Your task to perform on an android device: turn notification dots on Image 0: 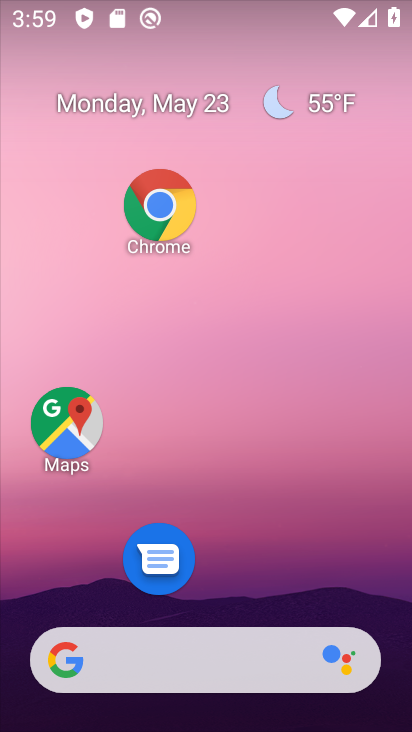
Step 0: drag from (272, 612) to (202, 2)
Your task to perform on an android device: turn notification dots on Image 1: 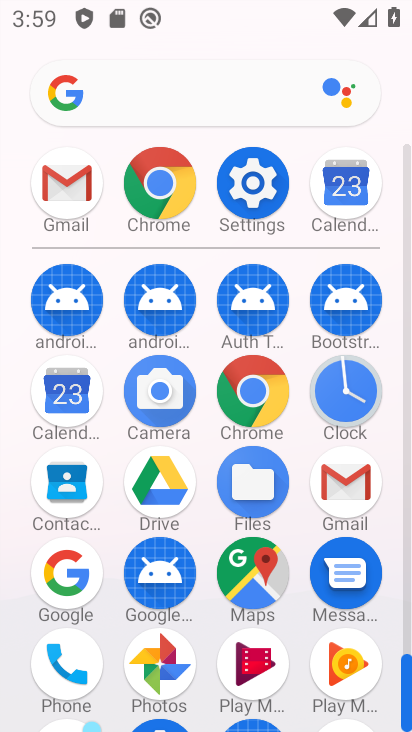
Step 1: click (255, 179)
Your task to perform on an android device: turn notification dots on Image 2: 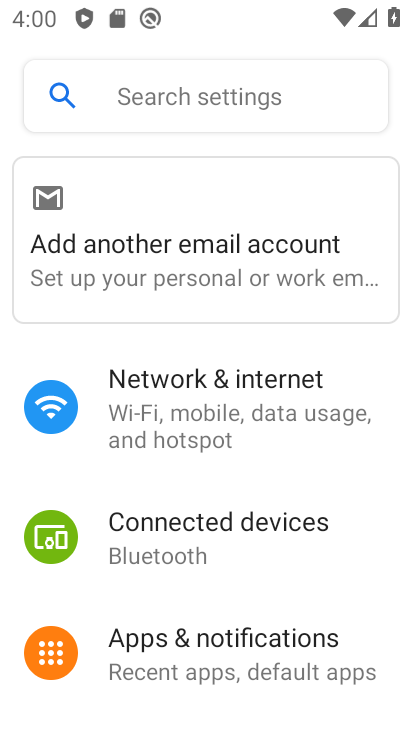
Step 2: click (222, 668)
Your task to perform on an android device: turn notification dots on Image 3: 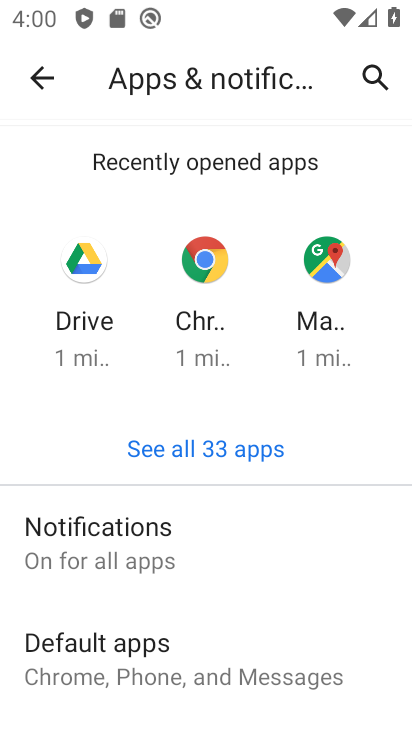
Step 3: drag from (173, 482) to (128, 114)
Your task to perform on an android device: turn notification dots on Image 4: 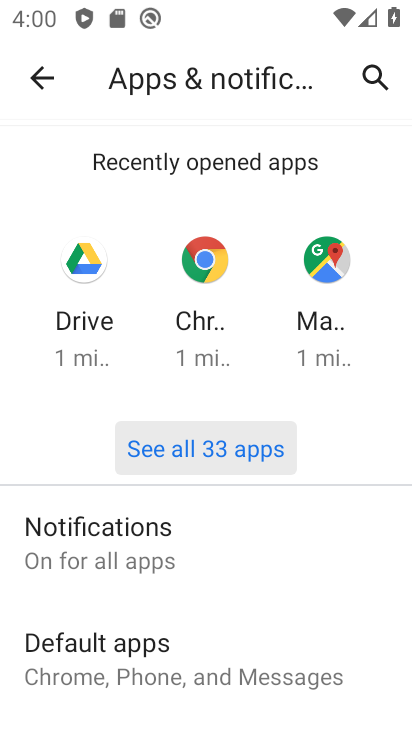
Step 4: drag from (184, 553) to (120, 2)
Your task to perform on an android device: turn notification dots on Image 5: 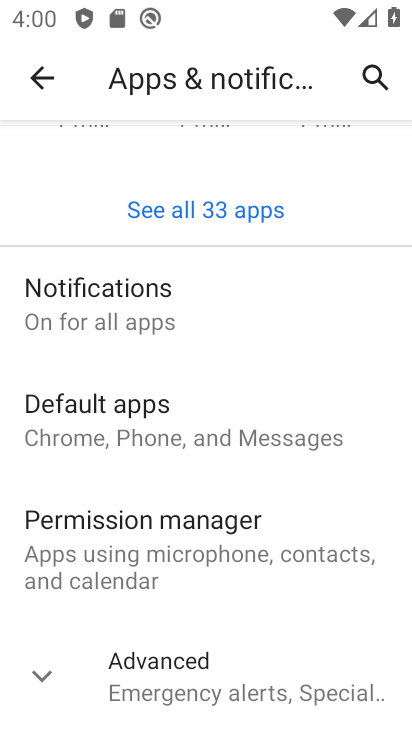
Step 5: drag from (160, 505) to (111, 180)
Your task to perform on an android device: turn notification dots on Image 6: 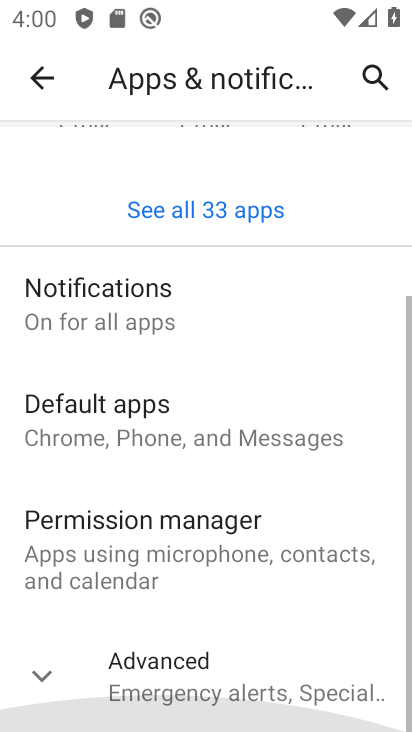
Step 6: drag from (173, 528) to (140, 199)
Your task to perform on an android device: turn notification dots on Image 7: 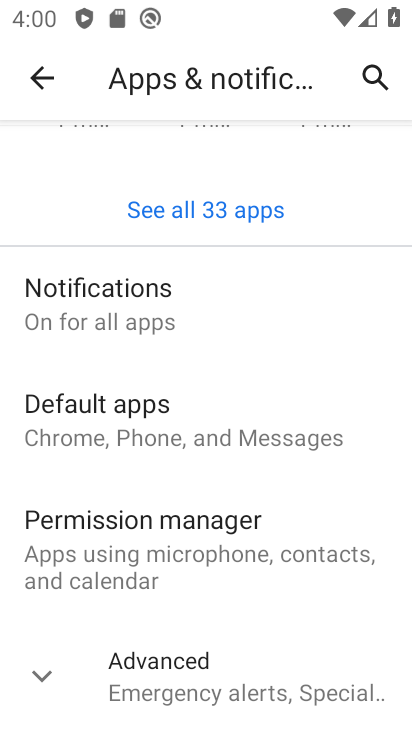
Step 7: click (100, 303)
Your task to perform on an android device: turn notification dots on Image 8: 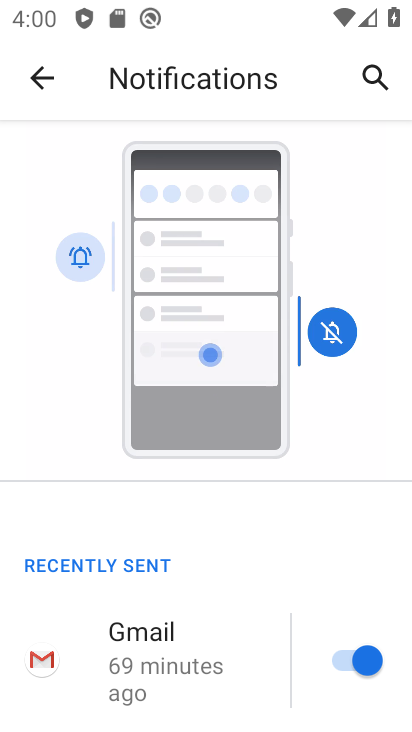
Step 8: drag from (174, 624) to (146, 266)
Your task to perform on an android device: turn notification dots on Image 9: 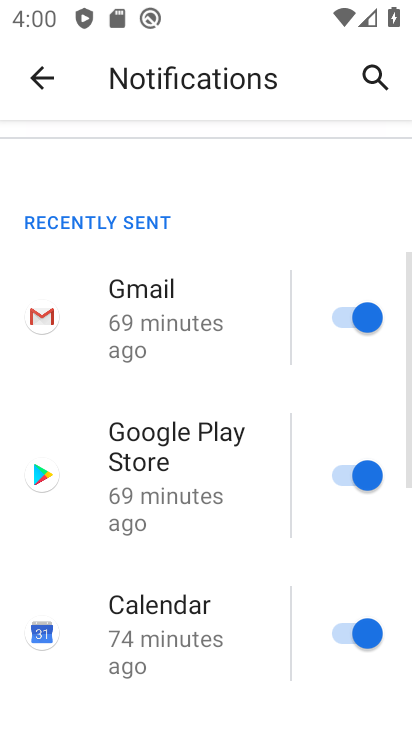
Step 9: drag from (183, 534) to (189, 220)
Your task to perform on an android device: turn notification dots on Image 10: 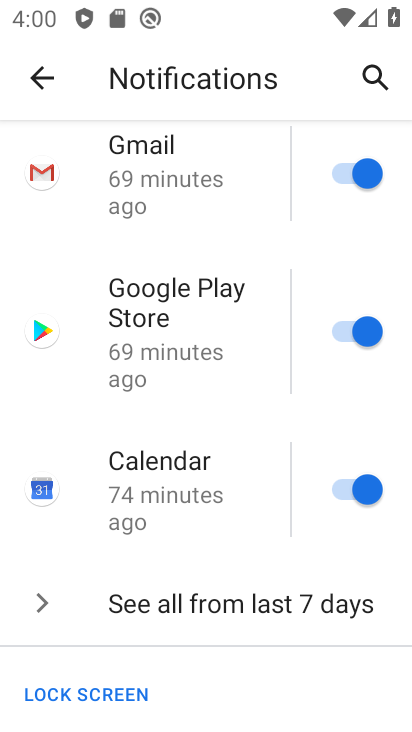
Step 10: drag from (214, 512) to (177, 273)
Your task to perform on an android device: turn notification dots on Image 11: 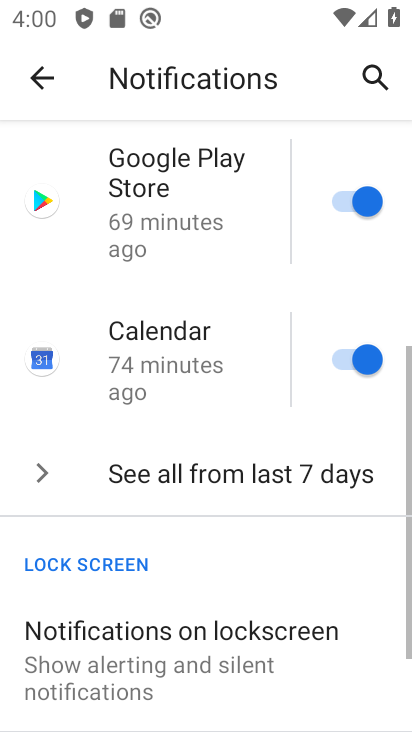
Step 11: drag from (229, 527) to (187, 94)
Your task to perform on an android device: turn notification dots on Image 12: 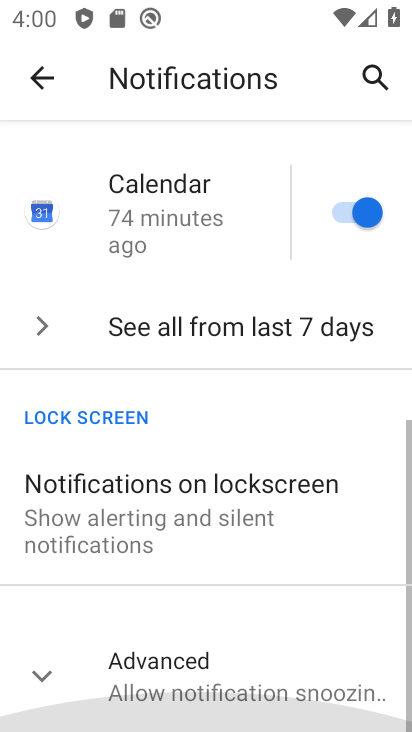
Step 12: drag from (224, 552) to (203, 131)
Your task to perform on an android device: turn notification dots on Image 13: 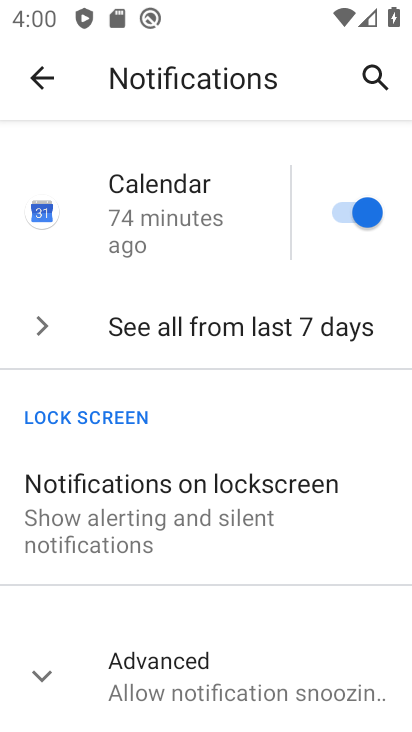
Step 13: click (166, 678)
Your task to perform on an android device: turn notification dots on Image 14: 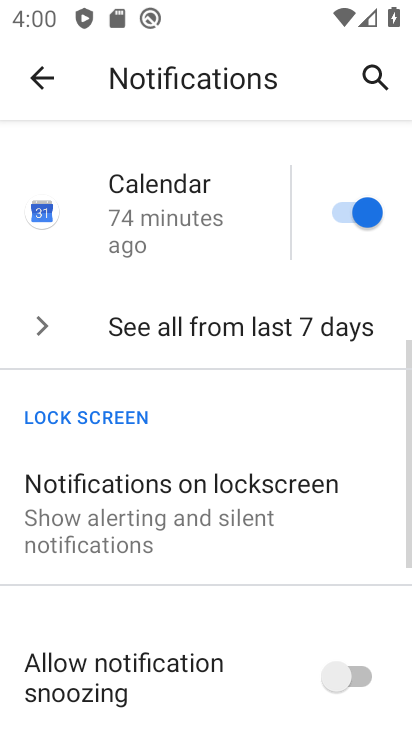
Step 14: drag from (209, 550) to (165, 249)
Your task to perform on an android device: turn notification dots on Image 15: 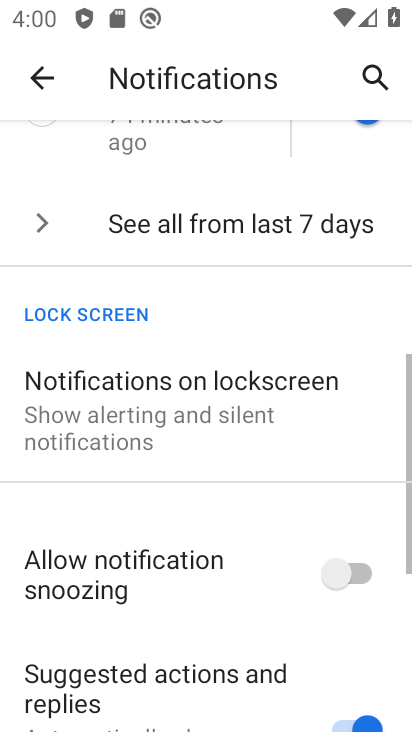
Step 15: drag from (215, 578) to (123, 402)
Your task to perform on an android device: turn notification dots on Image 16: 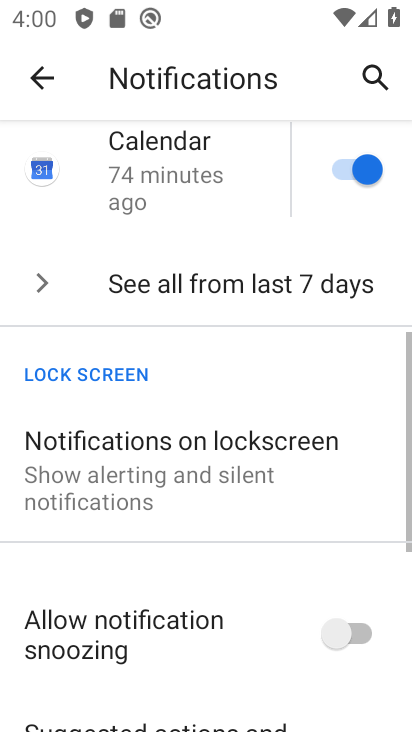
Step 16: drag from (158, 584) to (158, 425)
Your task to perform on an android device: turn notification dots on Image 17: 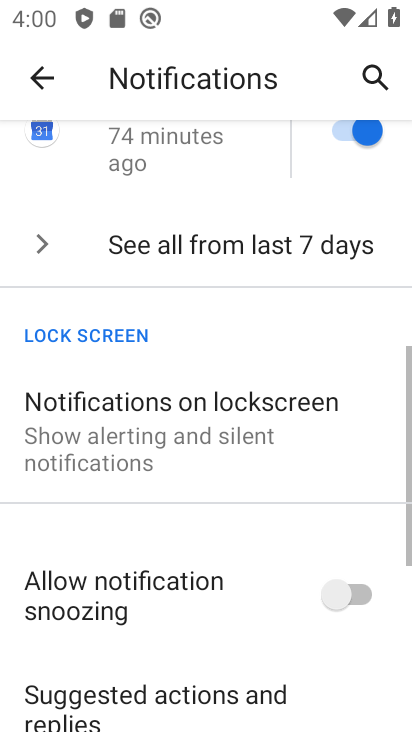
Step 17: drag from (196, 585) to (170, 370)
Your task to perform on an android device: turn notification dots on Image 18: 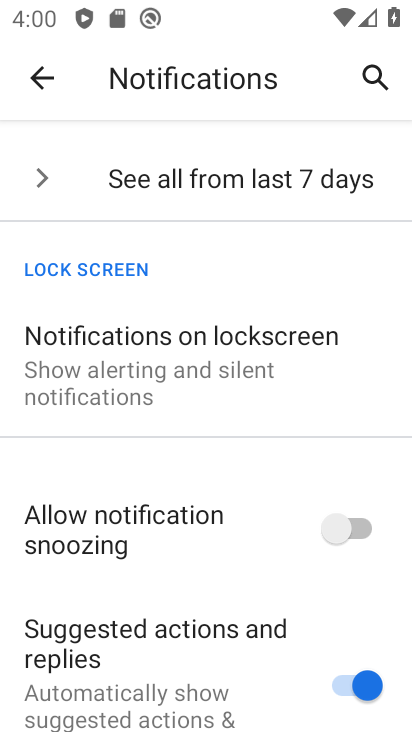
Step 18: drag from (194, 515) to (208, 334)
Your task to perform on an android device: turn notification dots on Image 19: 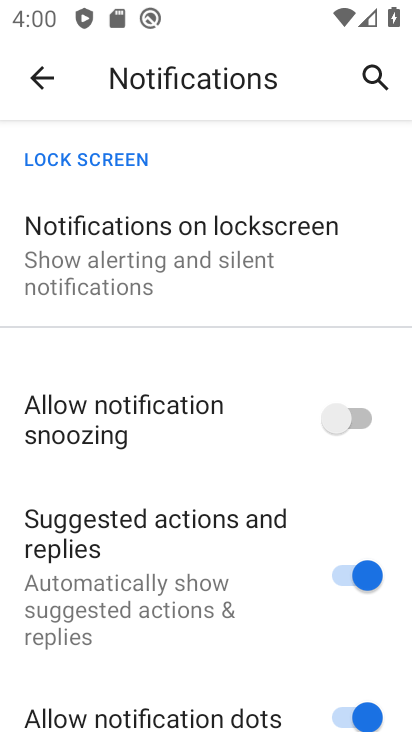
Step 19: drag from (189, 630) to (212, 291)
Your task to perform on an android device: turn notification dots on Image 20: 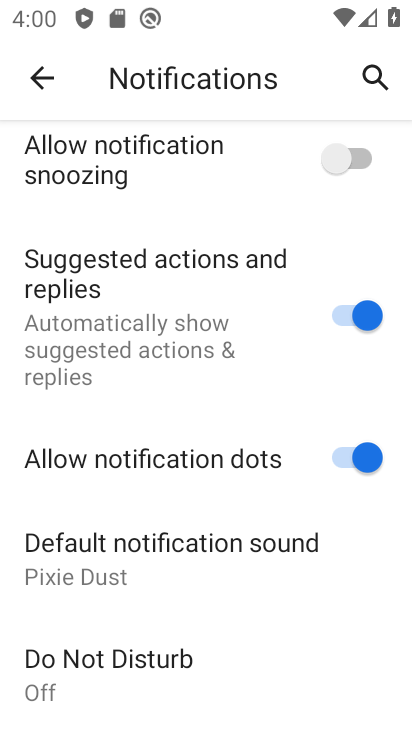
Step 20: click (362, 448)
Your task to perform on an android device: turn notification dots on Image 21: 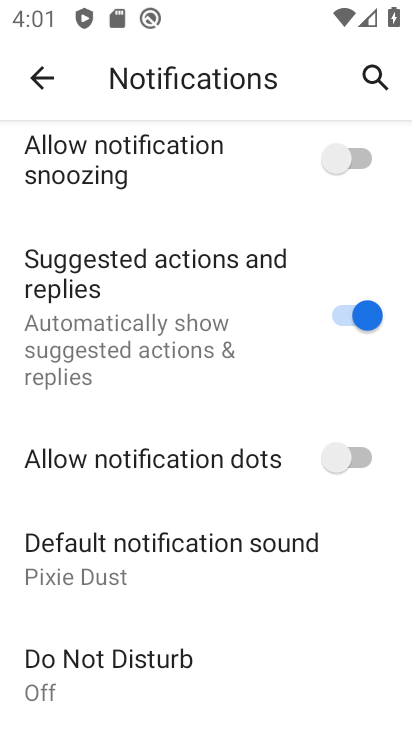
Step 21: click (331, 451)
Your task to perform on an android device: turn notification dots on Image 22: 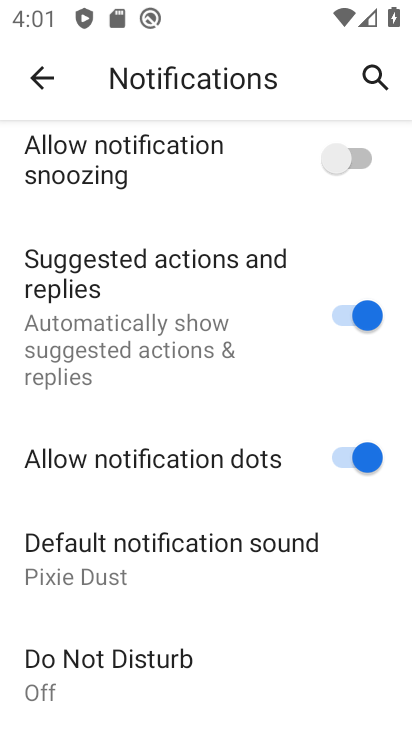
Step 22: task complete